Your task to perform on an android device: change notifications settings Image 0: 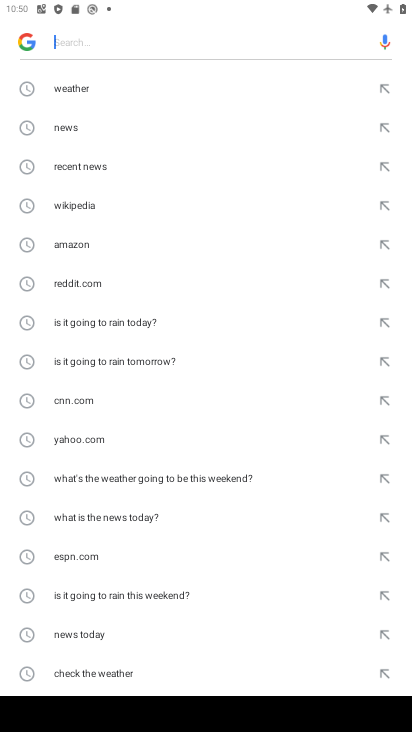
Step 0: press home button
Your task to perform on an android device: change notifications settings Image 1: 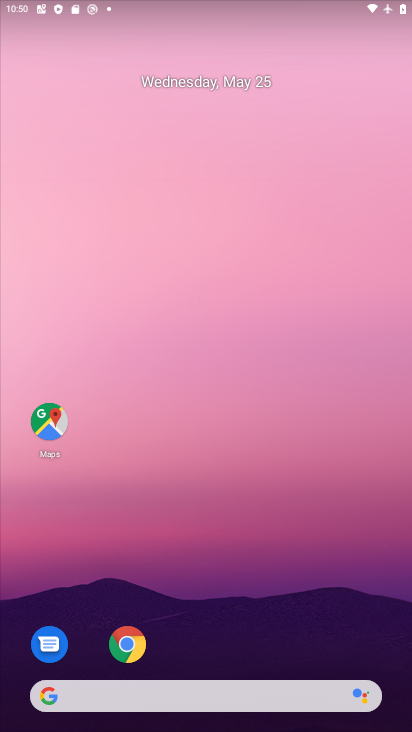
Step 1: drag from (245, 548) to (266, 85)
Your task to perform on an android device: change notifications settings Image 2: 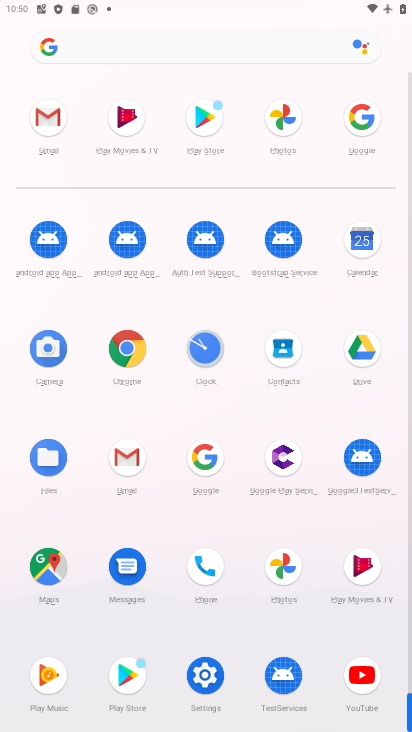
Step 2: click (197, 678)
Your task to perform on an android device: change notifications settings Image 3: 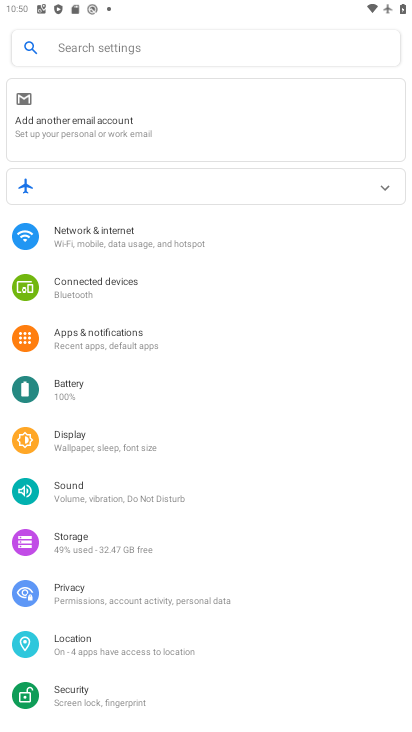
Step 3: click (91, 344)
Your task to perform on an android device: change notifications settings Image 4: 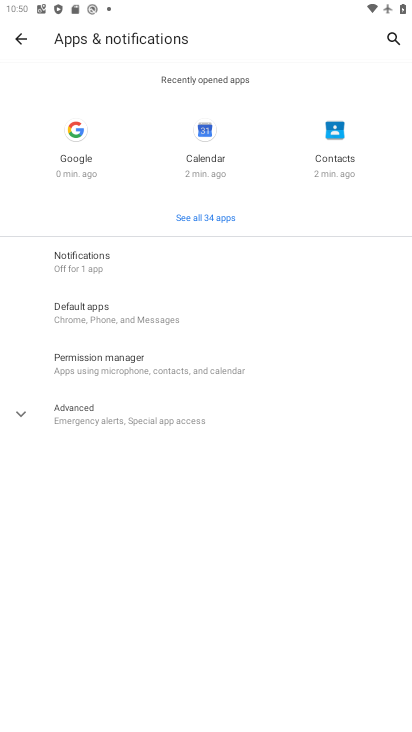
Step 4: click (80, 258)
Your task to perform on an android device: change notifications settings Image 5: 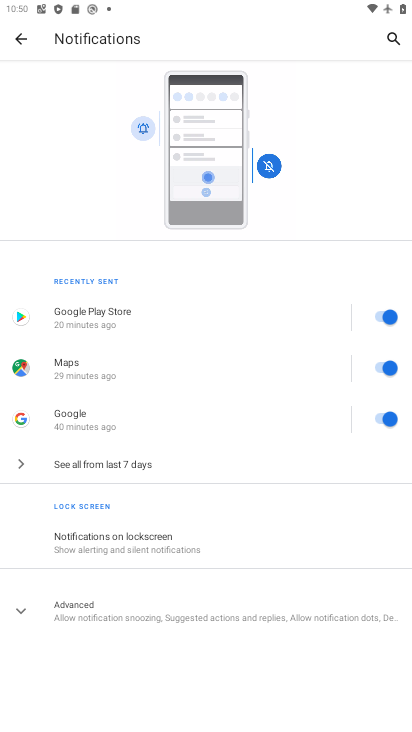
Step 5: click (91, 620)
Your task to perform on an android device: change notifications settings Image 6: 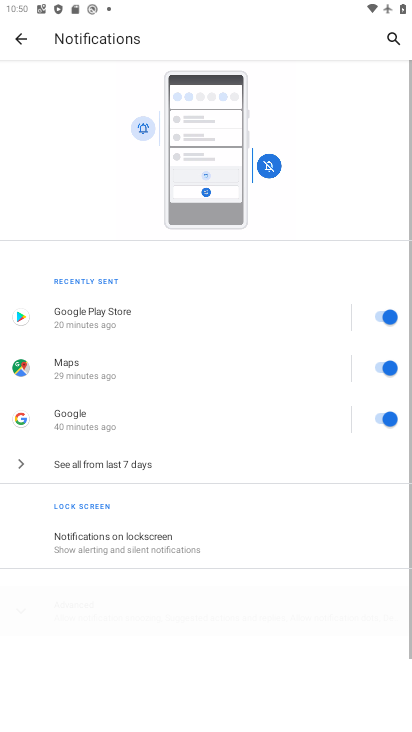
Step 6: drag from (238, 551) to (295, 152)
Your task to perform on an android device: change notifications settings Image 7: 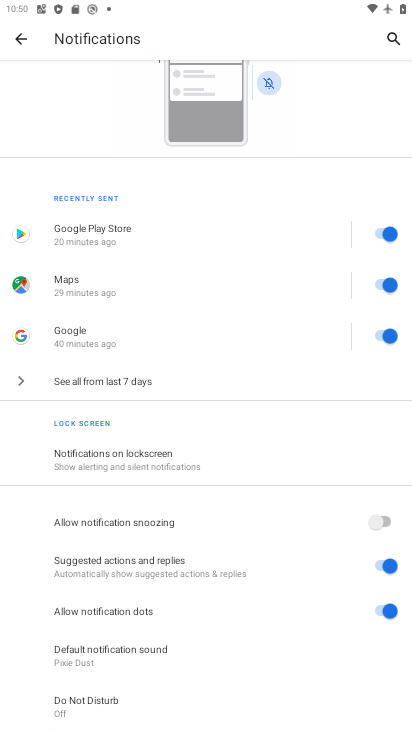
Step 7: click (378, 532)
Your task to perform on an android device: change notifications settings Image 8: 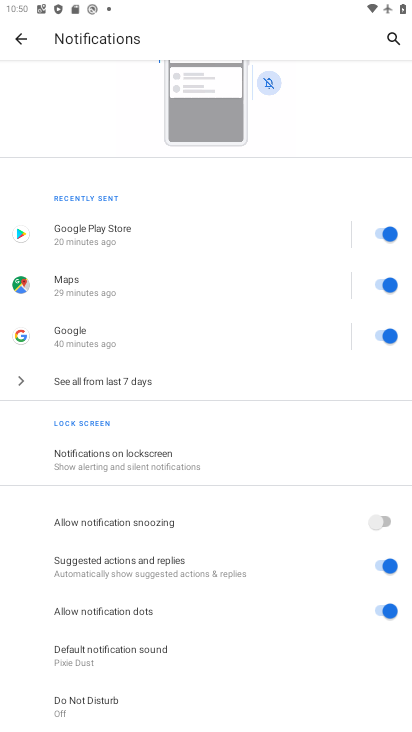
Step 8: click (380, 561)
Your task to perform on an android device: change notifications settings Image 9: 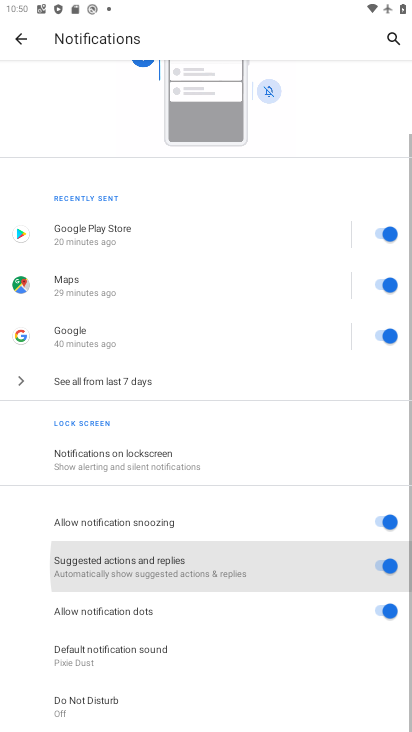
Step 9: click (382, 619)
Your task to perform on an android device: change notifications settings Image 10: 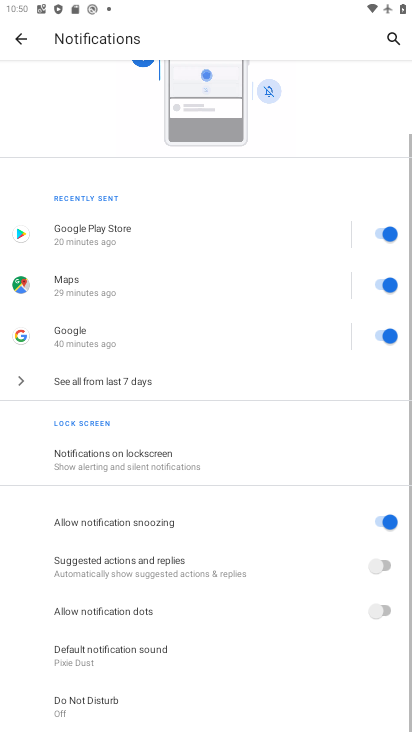
Step 10: task complete